Your task to perform on an android device: turn on wifi Image 0: 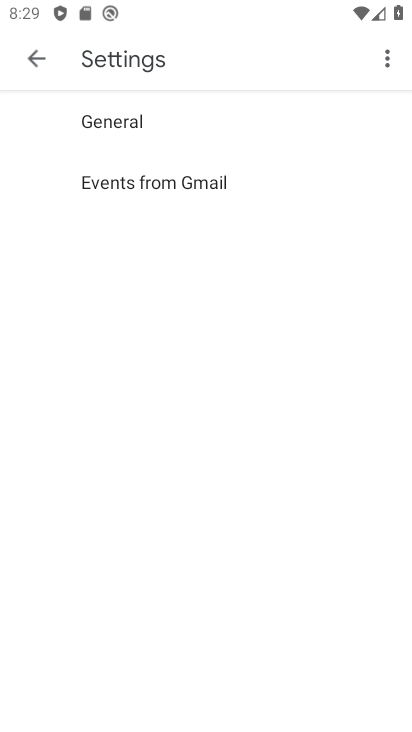
Step 0: press home button
Your task to perform on an android device: turn on wifi Image 1: 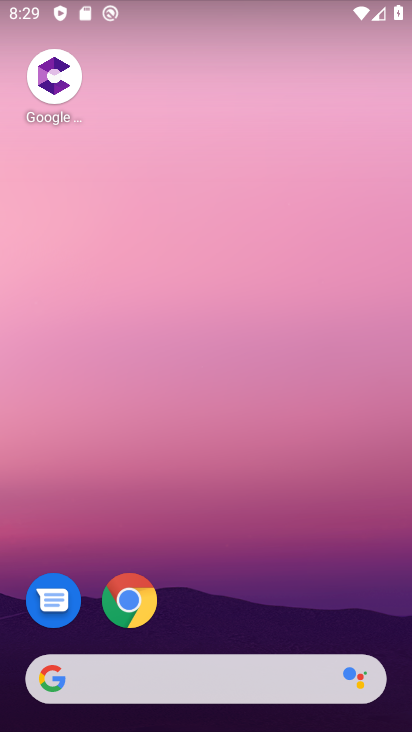
Step 1: drag from (293, 555) to (94, 8)
Your task to perform on an android device: turn on wifi Image 2: 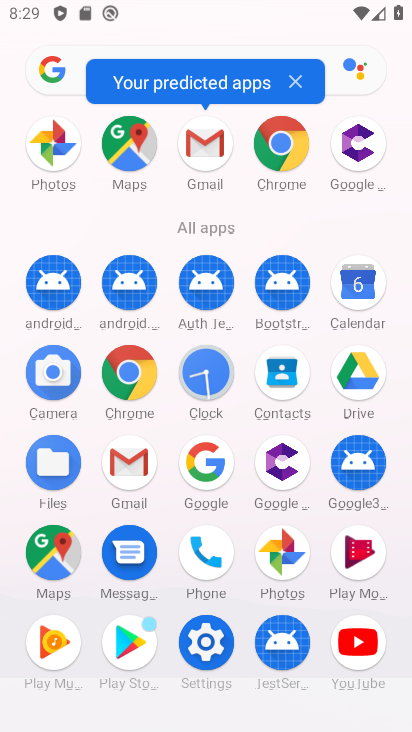
Step 2: click (204, 630)
Your task to perform on an android device: turn on wifi Image 3: 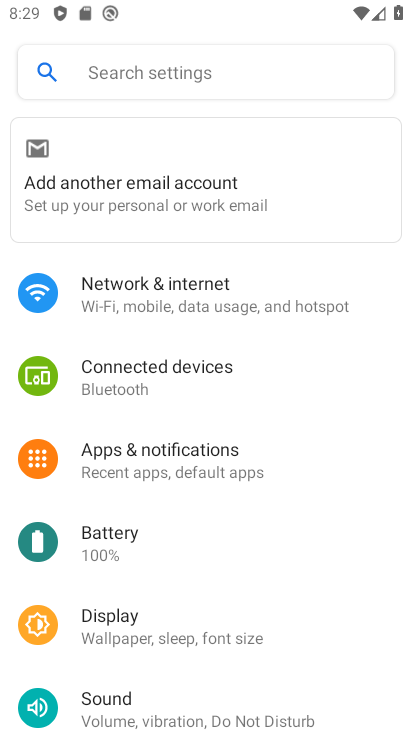
Step 3: click (207, 300)
Your task to perform on an android device: turn on wifi Image 4: 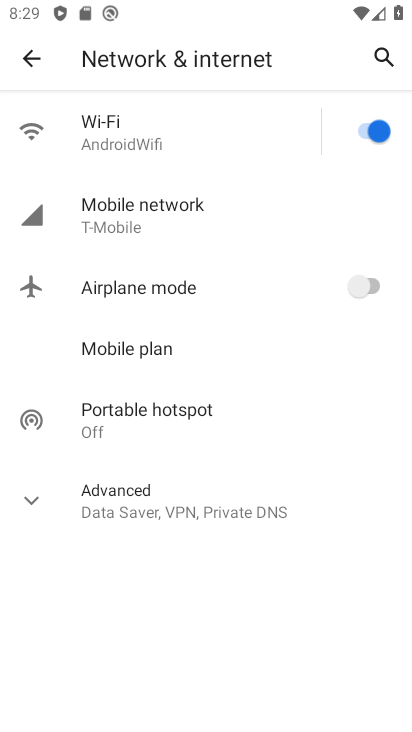
Step 4: task complete